Your task to perform on an android device: turn on the 24-hour format for clock Image 0: 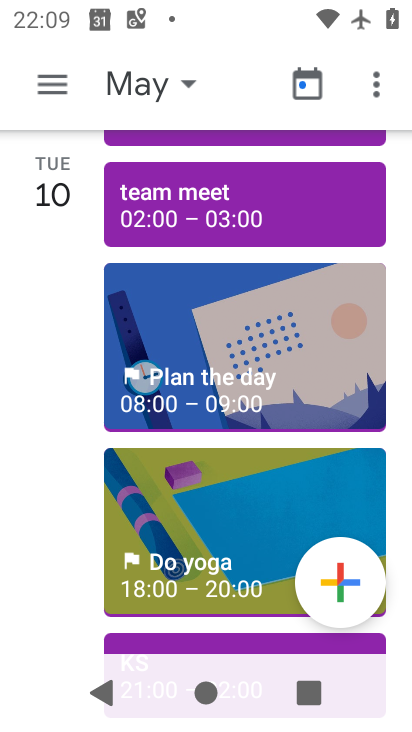
Step 0: drag from (299, 472) to (300, 290)
Your task to perform on an android device: turn on the 24-hour format for clock Image 1: 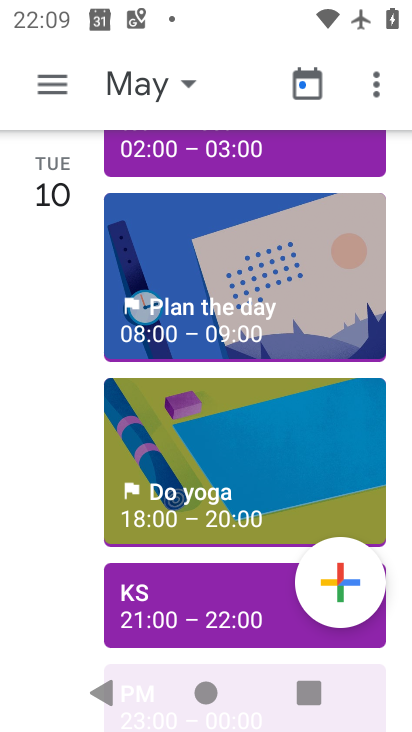
Step 1: press home button
Your task to perform on an android device: turn on the 24-hour format for clock Image 2: 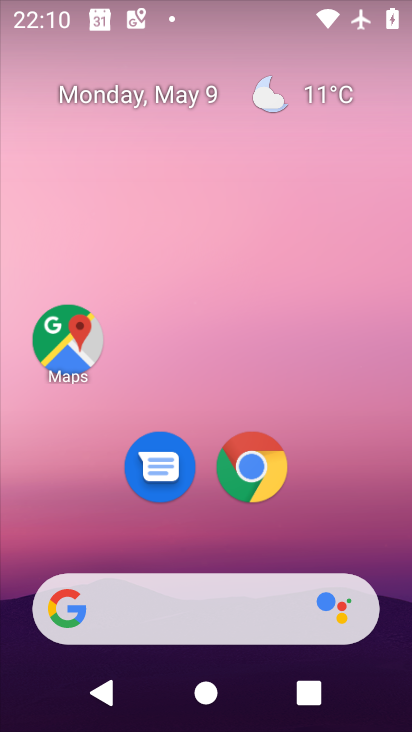
Step 2: drag from (313, 530) to (323, 288)
Your task to perform on an android device: turn on the 24-hour format for clock Image 3: 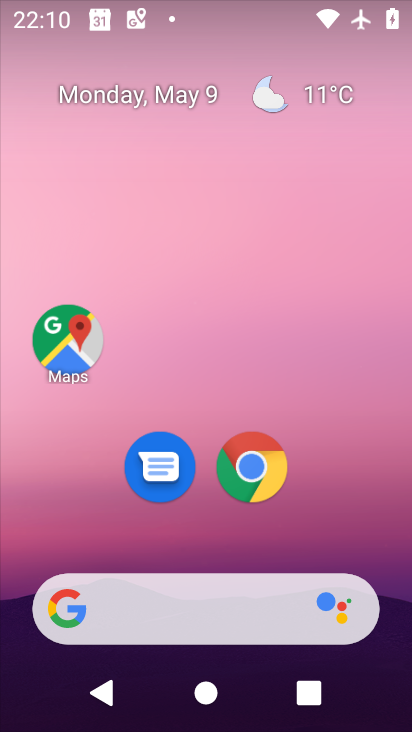
Step 3: drag from (314, 456) to (304, 262)
Your task to perform on an android device: turn on the 24-hour format for clock Image 4: 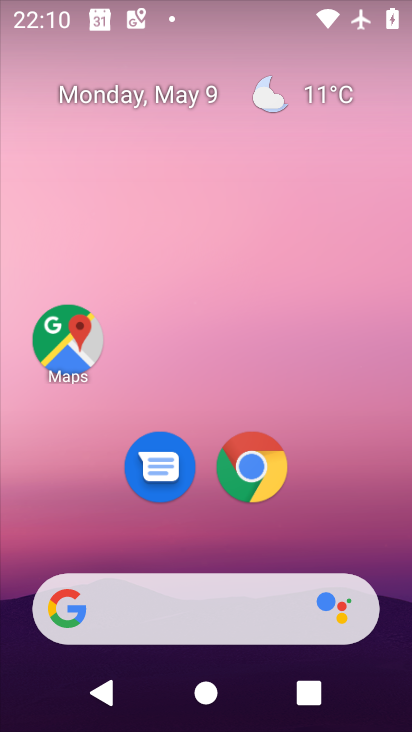
Step 4: drag from (293, 536) to (289, 191)
Your task to perform on an android device: turn on the 24-hour format for clock Image 5: 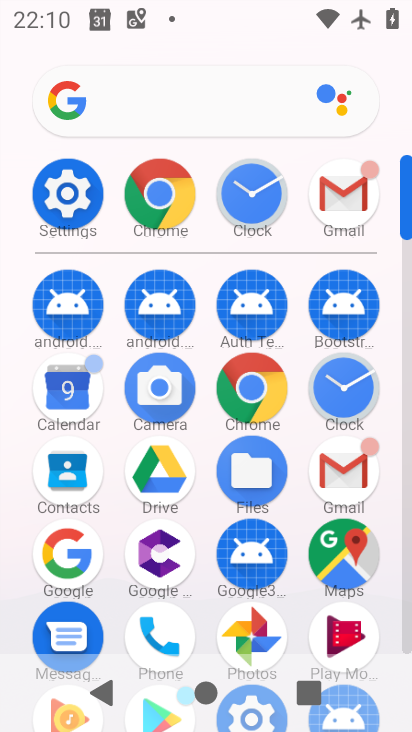
Step 5: click (350, 384)
Your task to perform on an android device: turn on the 24-hour format for clock Image 6: 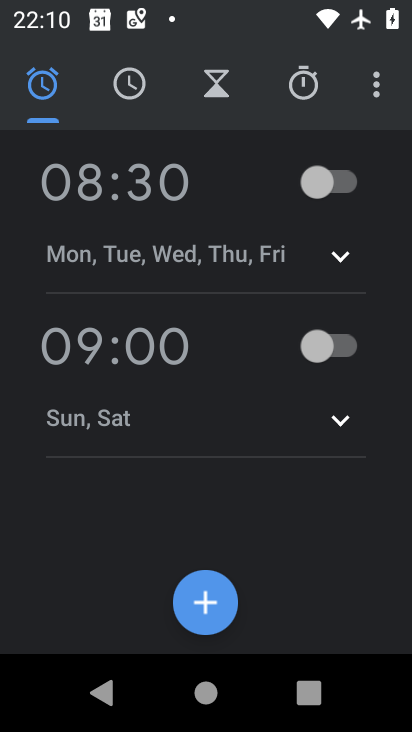
Step 6: click (363, 82)
Your task to perform on an android device: turn on the 24-hour format for clock Image 7: 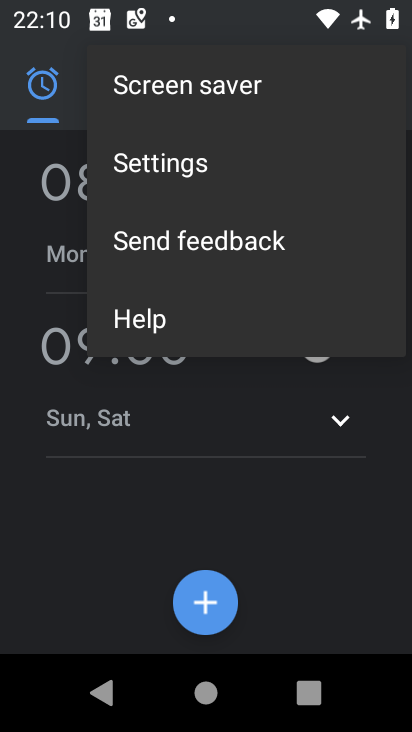
Step 7: click (210, 189)
Your task to perform on an android device: turn on the 24-hour format for clock Image 8: 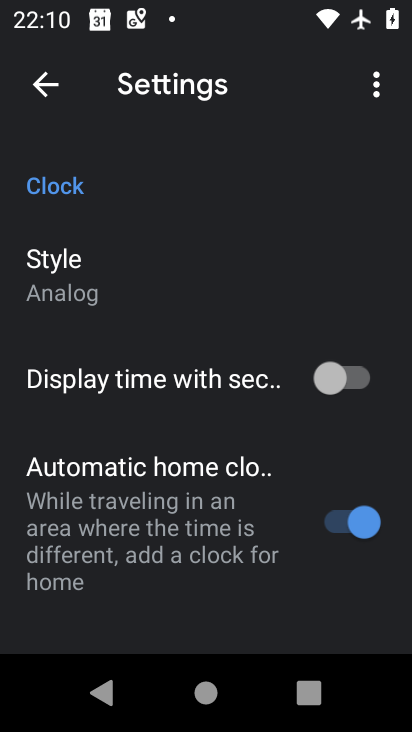
Step 8: drag from (269, 488) to (299, 152)
Your task to perform on an android device: turn on the 24-hour format for clock Image 9: 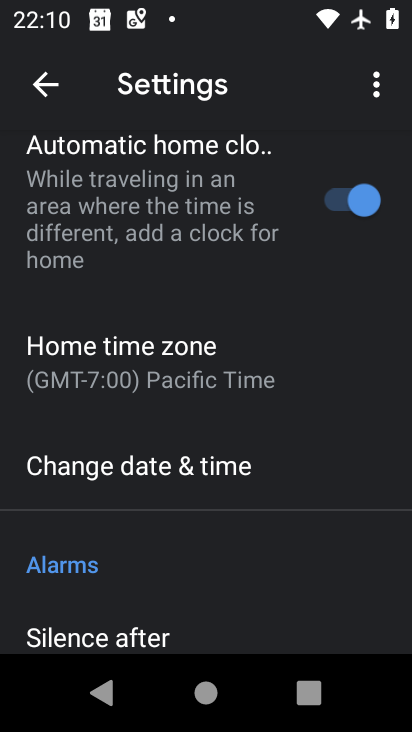
Step 9: click (193, 452)
Your task to perform on an android device: turn on the 24-hour format for clock Image 10: 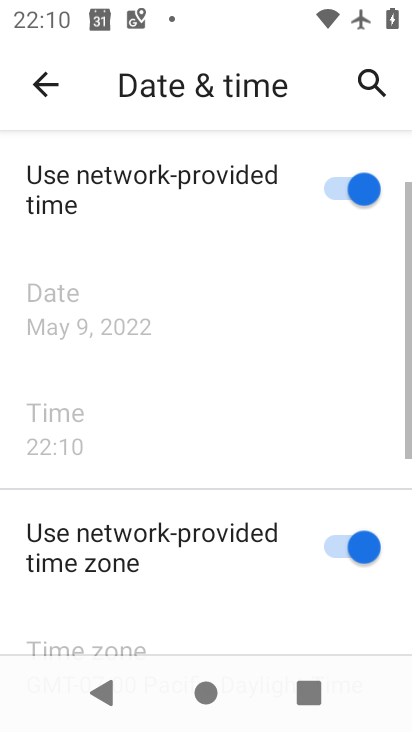
Step 10: task complete